Your task to perform on an android device: set default search engine in the chrome app Image 0: 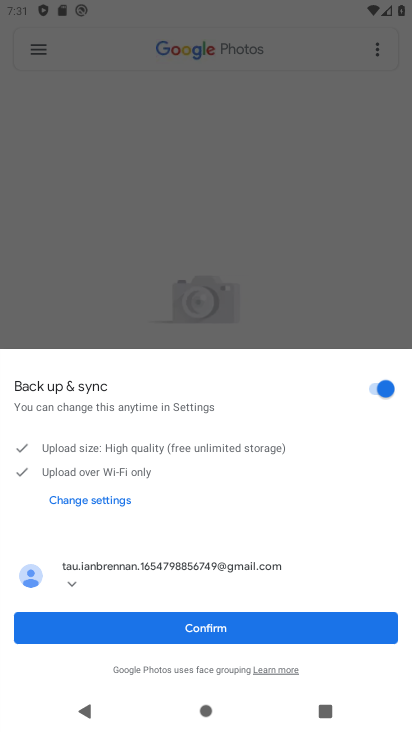
Step 0: press home button
Your task to perform on an android device: set default search engine in the chrome app Image 1: 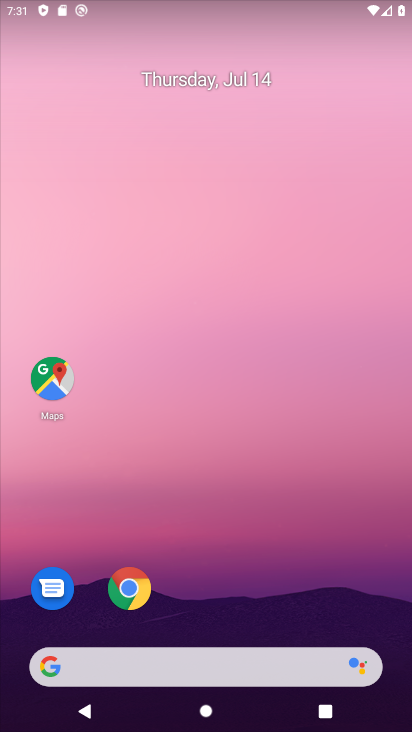
Step 1: click (123, 590)
Your task to perform on an android device: set default search engine in the chrome app Image 2: 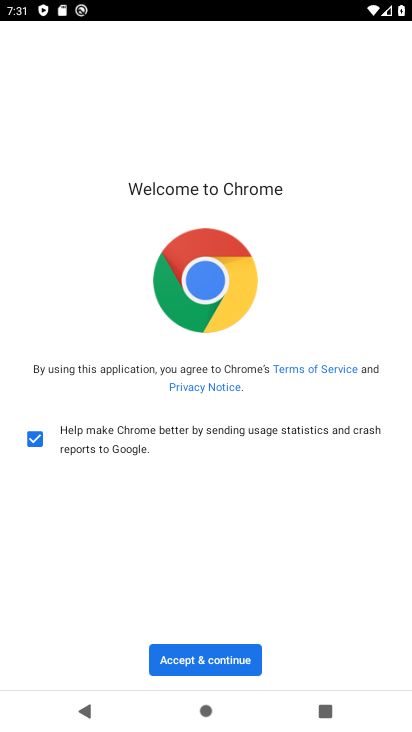
Step 2: click (219, 667)
Your task to perform on an android device: set default search engine in the chrome app Image 3: 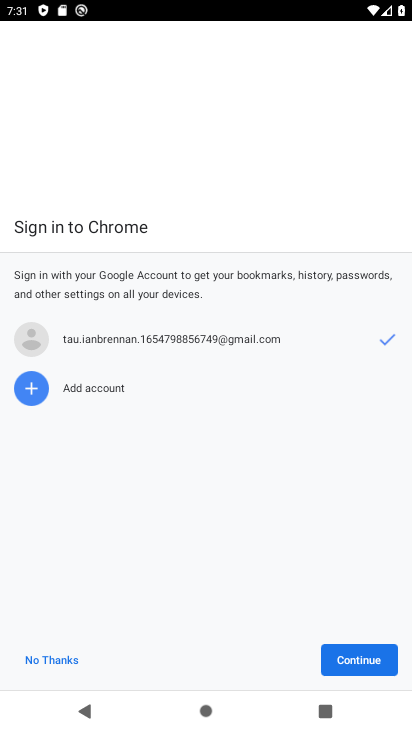
Step 3: click (372, 666)
Your task to perform on an android device: set default search engine in the chrome app Image 4: 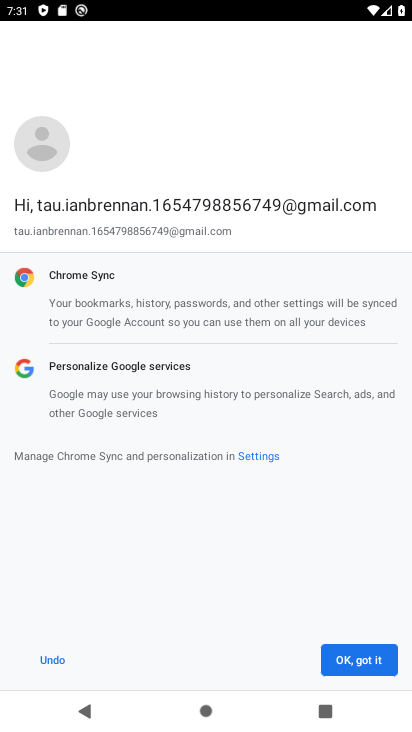
Step 4: click (372, 666)
Your task to perform on an android device: set default search engine in the chrome app Image 5: 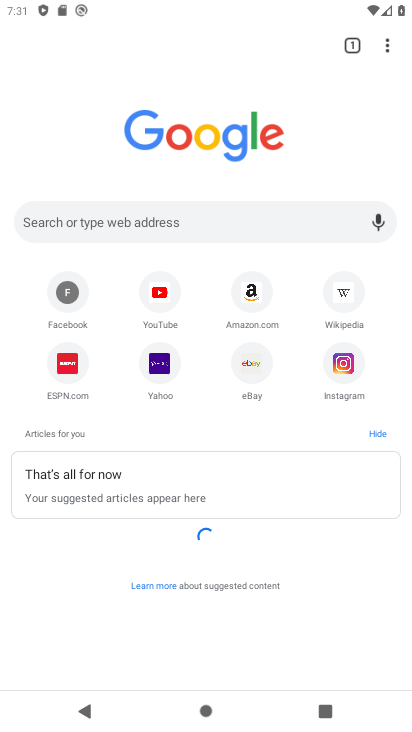
Step 5: click (382, 38)
Your task to perform on an android device: set default search engine in the chrome app Image 6: 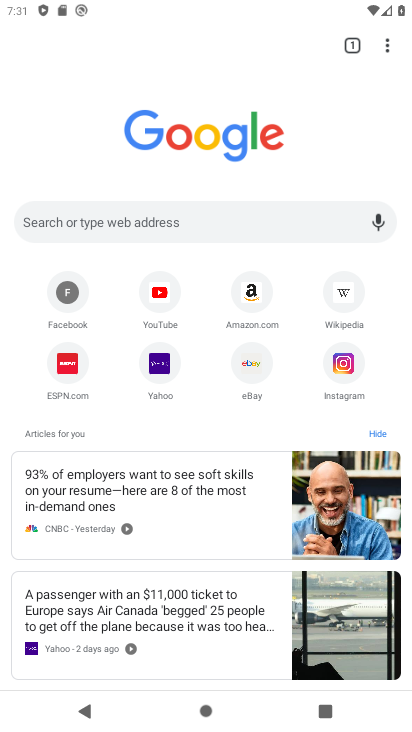
Step 6: click (390, 42)
Your task to perform on an android device: set default search engine in the chrome app Image 7: 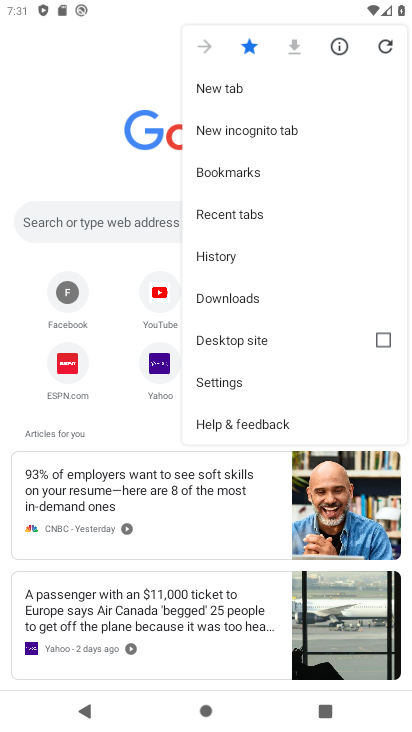
Step 7: click (220, 383)
Your task to perform on an android device: set default search engine in the chrome app Image 8: 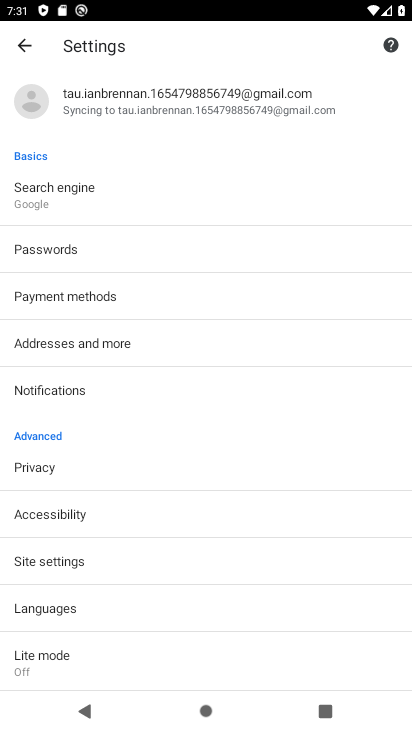
Step 8: click (51, 203)
Your task to perform on an android device: set default search engine in the chrome app Image 9: 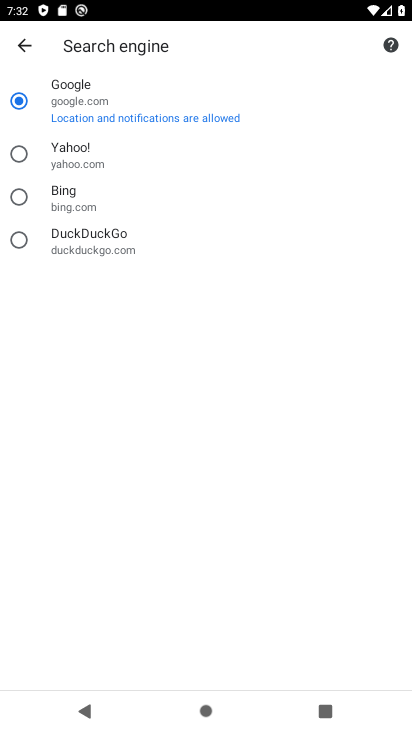
Step 9: click (90, 88)
Your task to perform on an android device: set default search engine in the chrome app Image 10: 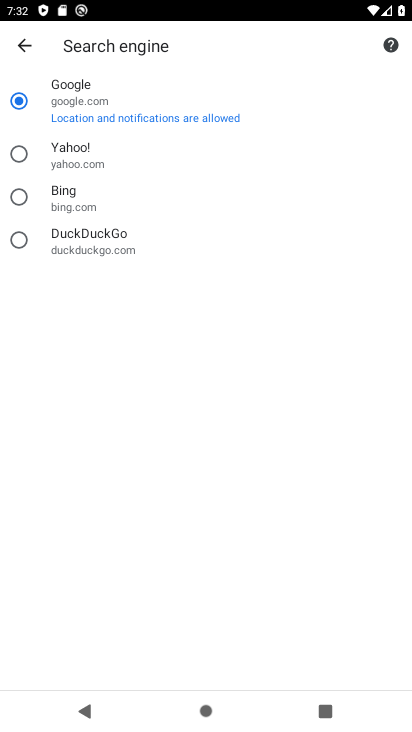
Step 10: task complete